Your task to perform on an android device: Add "alienware aurora" to the cart on target.com Image 0: 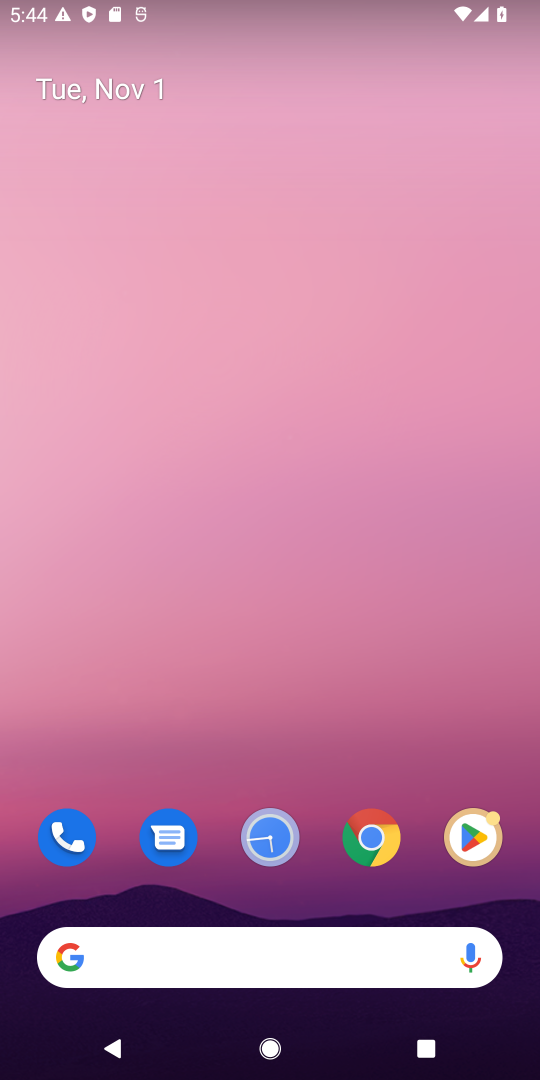
Step 0: drag from (354, 1005) to (328, 152)
Your task to perform on an android device: Add "alienware aurora" to the cart on target.com Image 1: 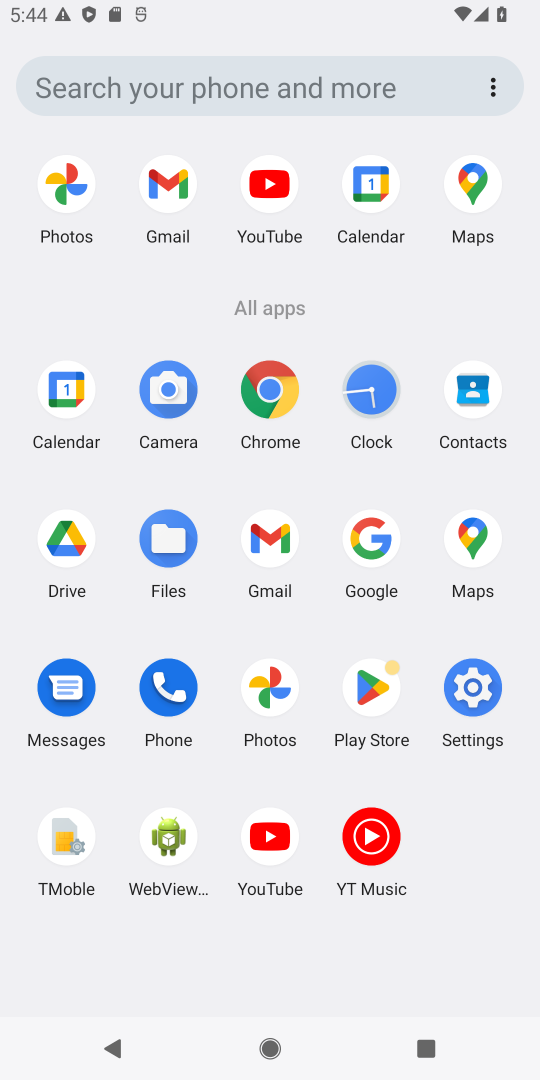
Step 1: click (265, 373)
Your task to perform on an android device: Add "alienware aurora" to the cart on target.com Image 2: 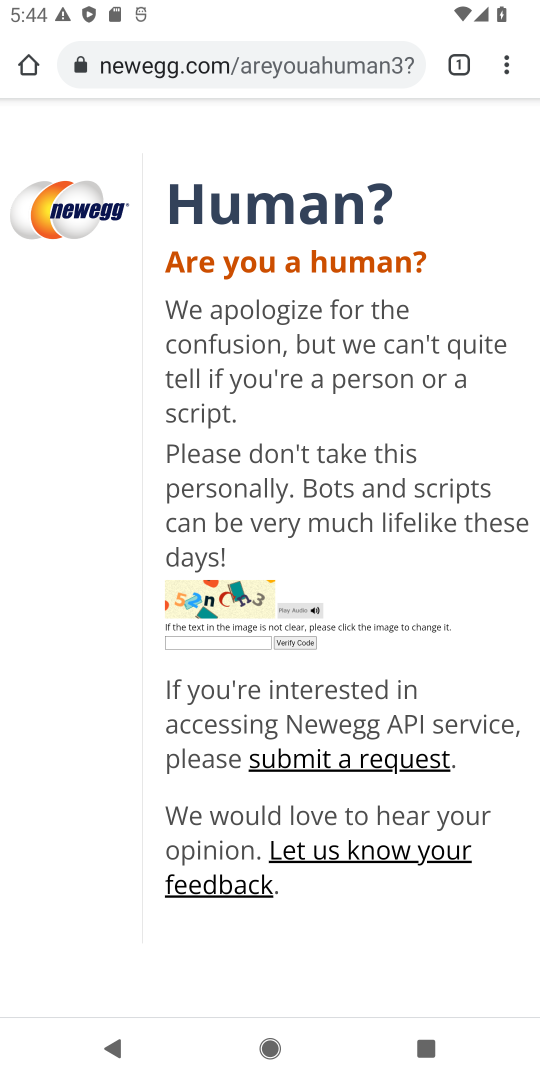
Step 2: click (233, 59)
Your task to perform on an android device: Add "alienware aurora" to the cart on target.com Image 3: 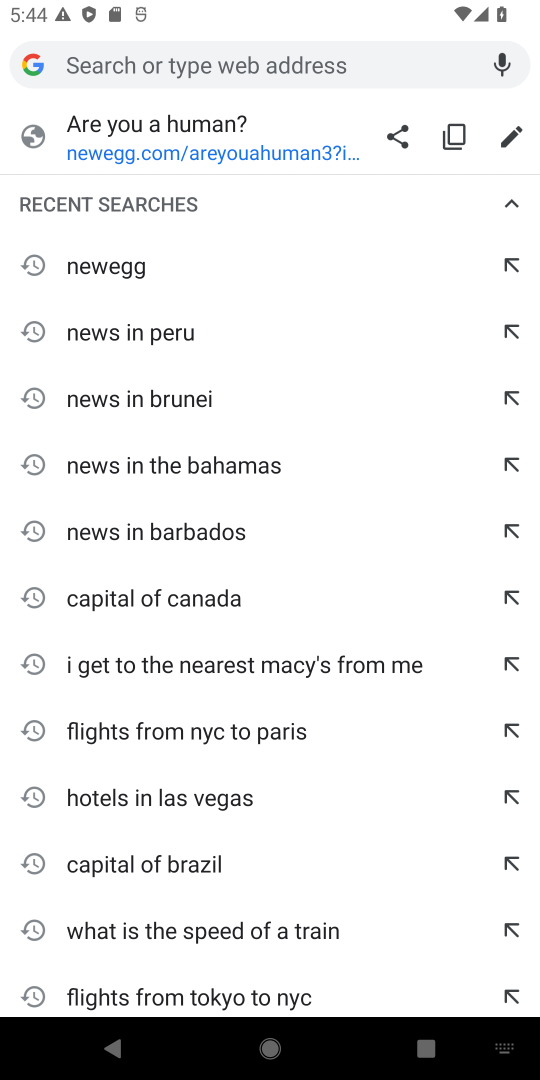
Step 3: type "target.com"
Your task to perform on an android device: Add "alienware aurora" to the cart on target.com Image 4: 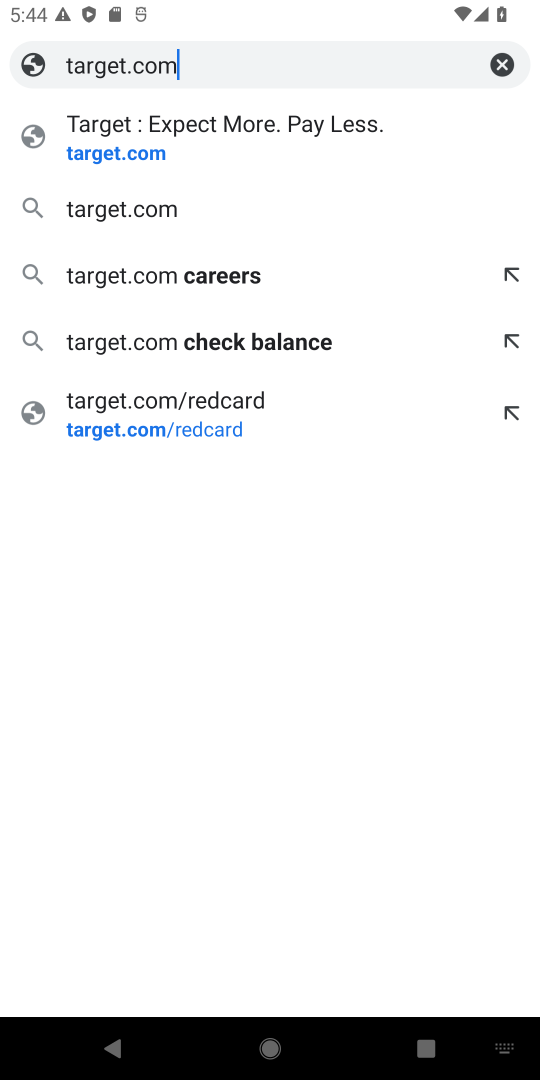
Step 4: click (95, 152)
Your task to perform on an android device: Add "alienware aurora" to the cart on target.com Image 5: 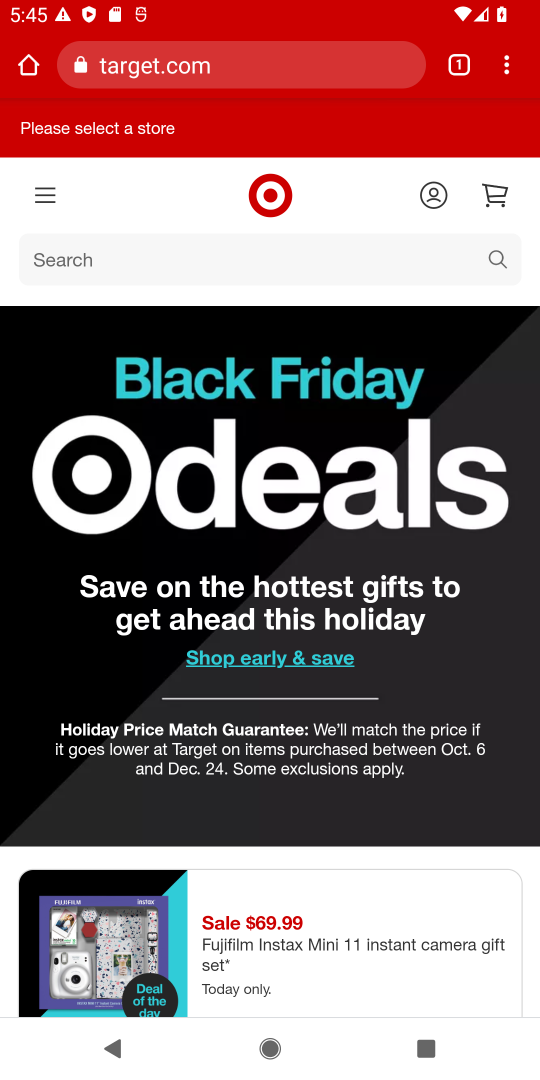
Step 5: click (326, 262)
Your task to perform on an android device: Add "alienware aurora" to the cart on target.com Image 6: 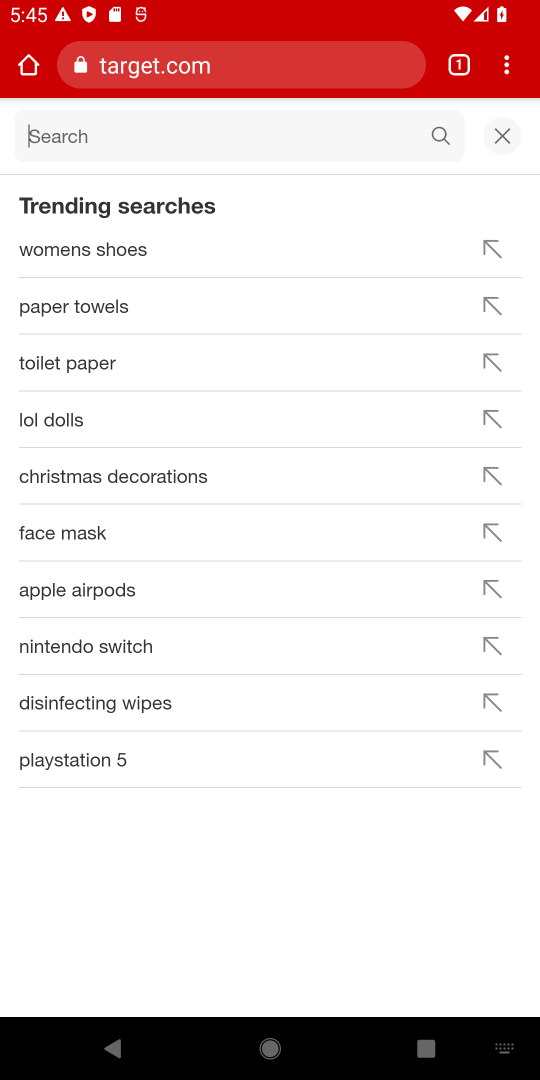
Step 6: type "alienware aurora"
Your task to perform on an android device: Add "alienware aurora" to the cart on target.com Image 7: 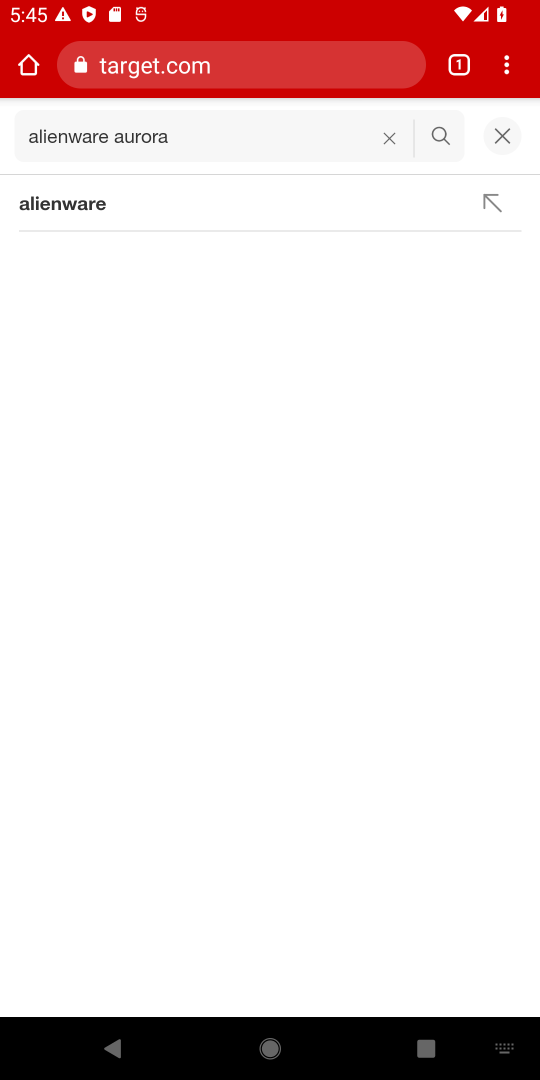
Step 7: click (439, 138)
Your task to perform on an android device: Add "alienware aurora" to the cart on target.com Image 8: 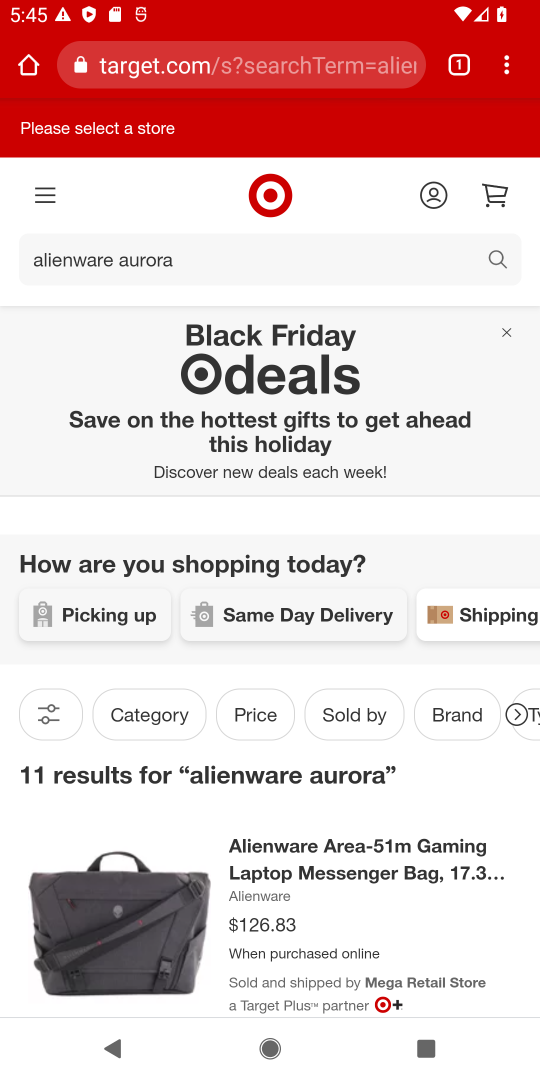
Step 8: drag from (185, 832) to (238, 301)
Your task to perform on an android device: Add "alienware aurora" to the cart on target.com Image 9: 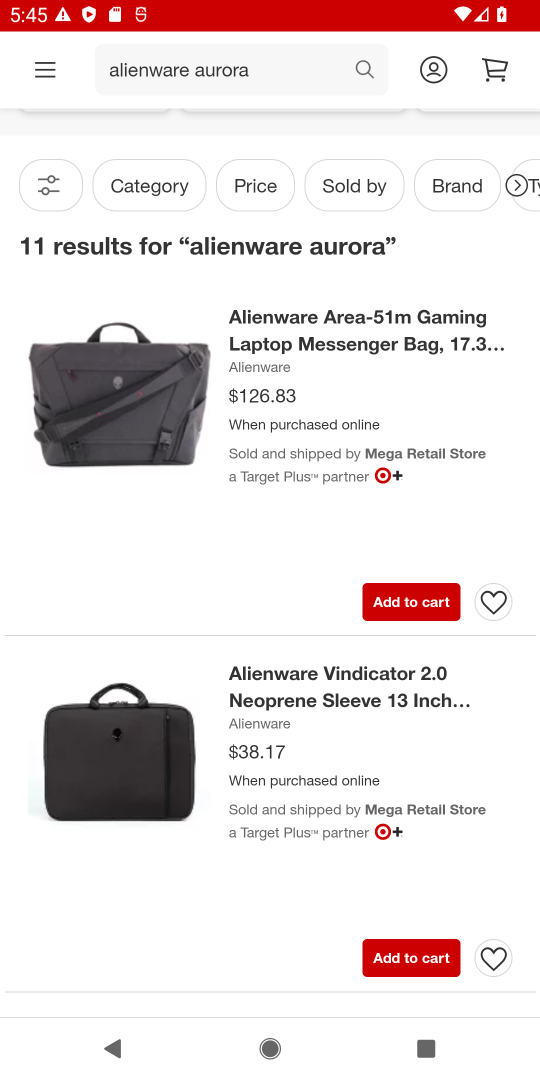
Step 9: click (108, 404)
Your task to perform on an android device: Add "alienware aurora" to the cart on target.com Image 10: 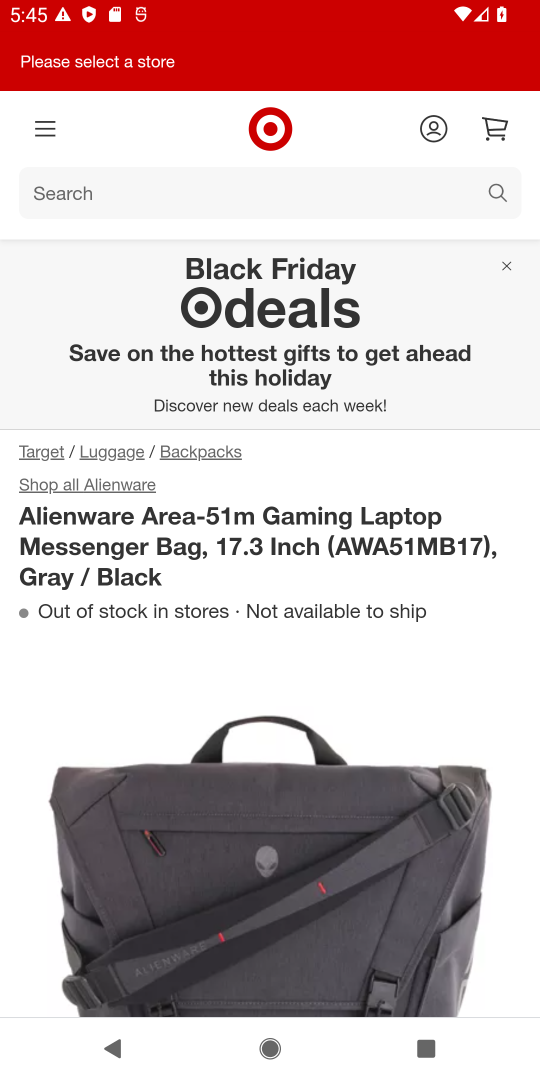
Step 10: drag from (413, 682) to (439, 155)
Your task to perform on an android device: Add "alienware aurora" to the cart on target.com Image 11: 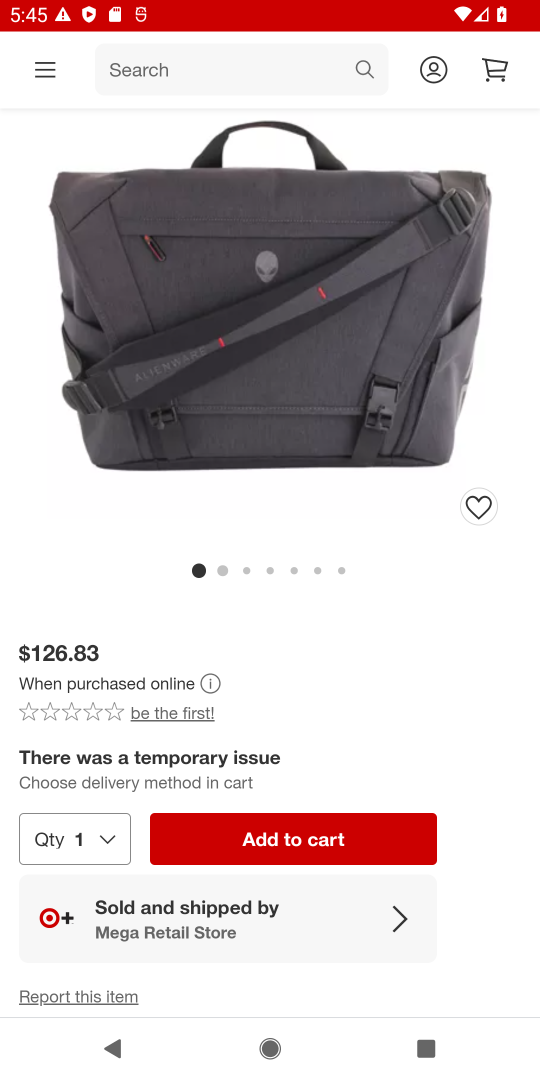
Step 11: click (320, 837)
Your task to perform on an android device: Add "alienware aurora" to the cart on target.com Image 12: 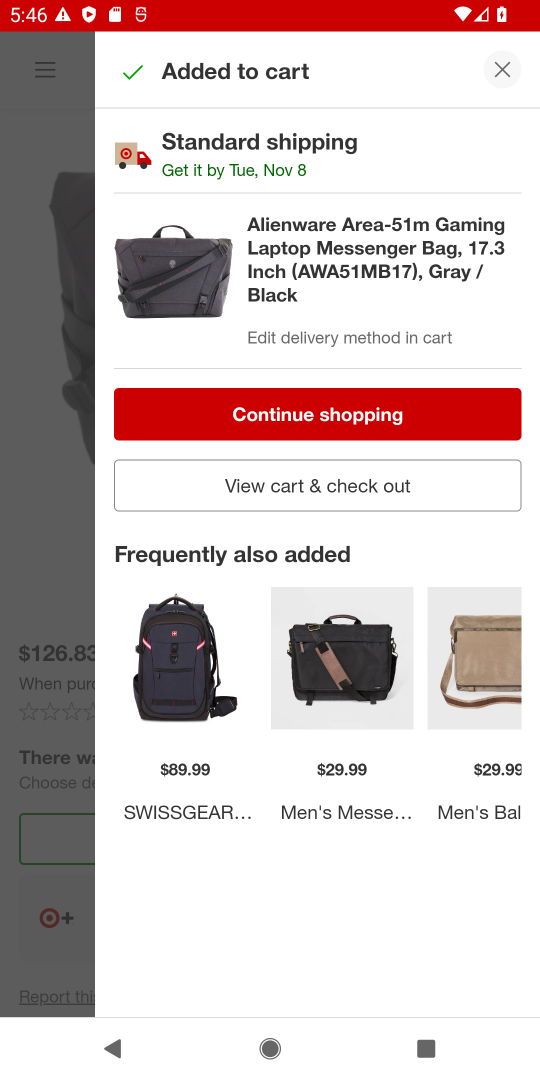
Step 12: task complete